Your task to perform on an android device: Search for vegetarian restaurants on Maps Image 0: 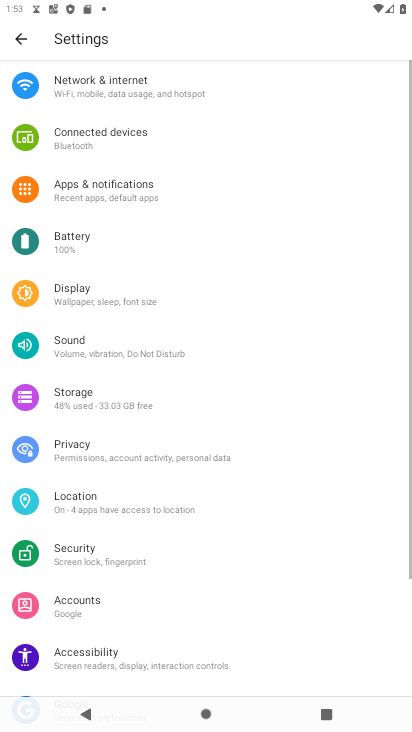
Step 0: press home button
Your task to perform on an android device: Search for vegetarian restaurants on Maps Image 1: 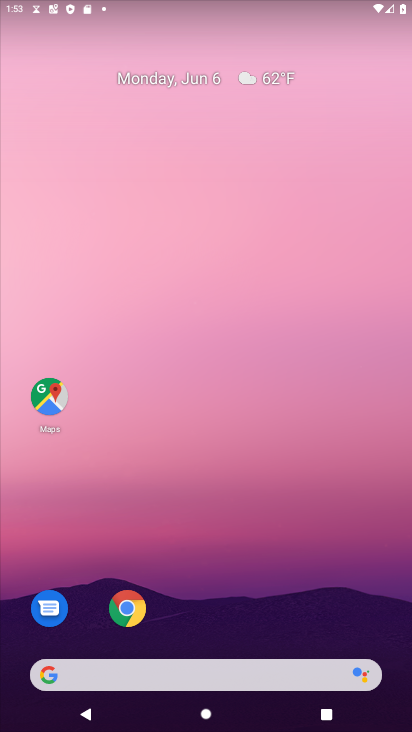
Step 1: drag from (256, 524) to (351, 19)
Your task to perform on an android device: Search for vegetarian restaurants on Maps Image 2: 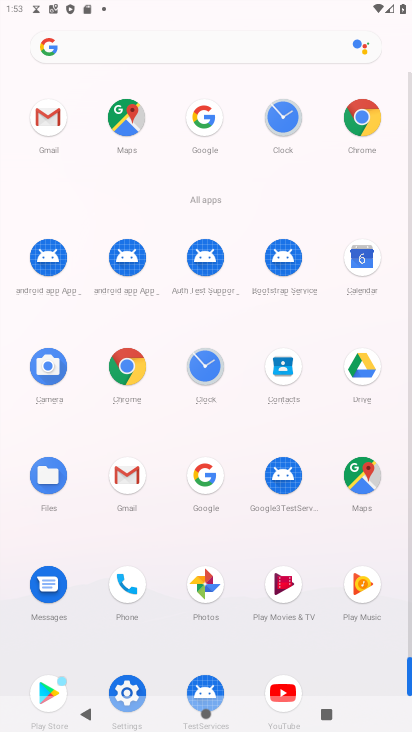
Step 2: click (353, 458)
Your task to perform on an android device: Search for vegetarian restaurants on Maps Image 3: 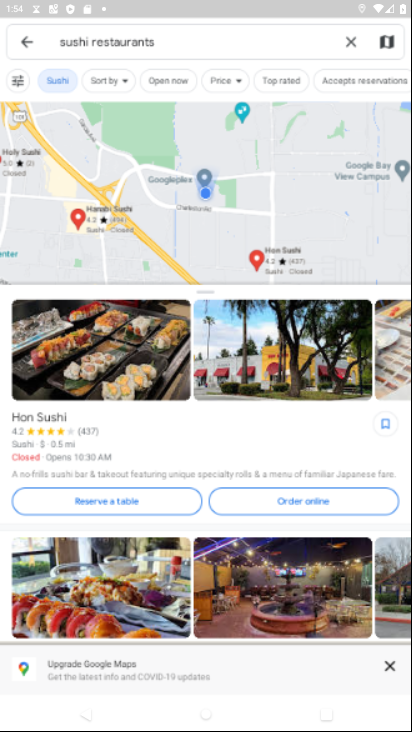
Step 3: click (346, 52)
Your task to perform on an android device: Search for vegetarian restaurants on Maps Image 4: 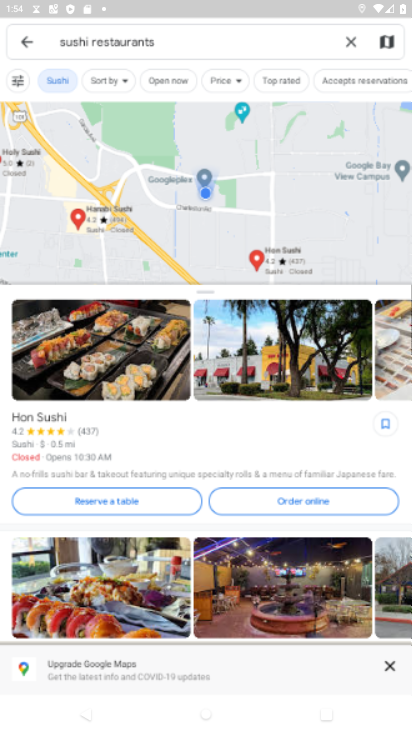
Step 4: click (346, 46)
Your task to perform on an android device: Search for vegetarian restaurants on Maps Image 5: 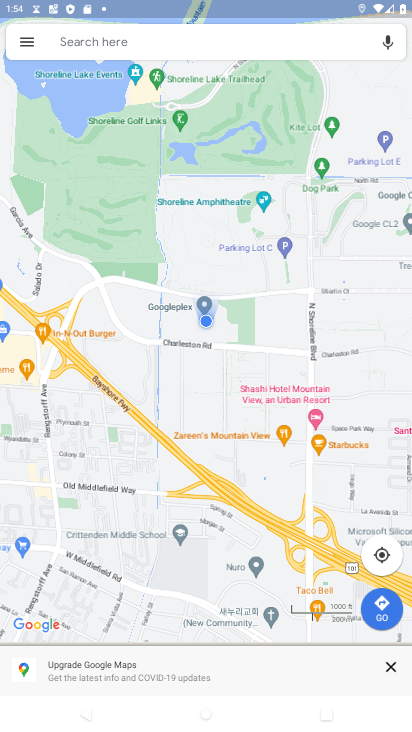
Step 5: click (268, 45)
Your task to perform on an android device: Search for vegetarian restaurants on Maps Image 6: 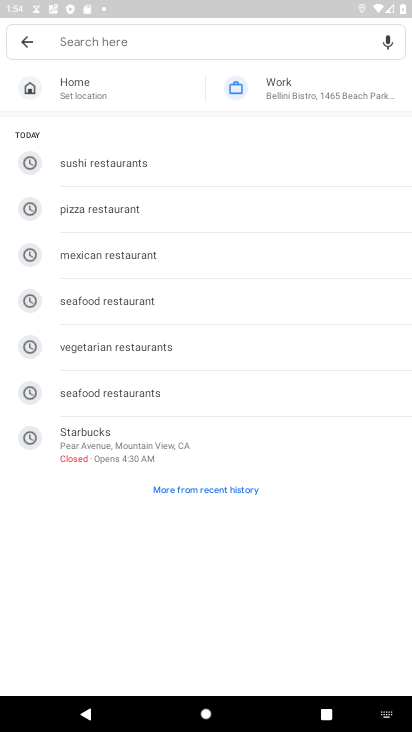
Step 6: click (190, 333)
Your task to perform on an android device: Search for vegetarian restaurants on Maps Image 7: 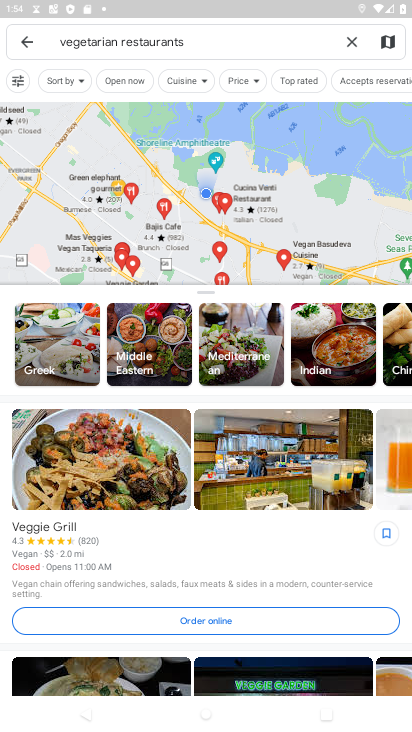
Step 7: task complete